Your task to perform on an android device: Go to settings Image 0: 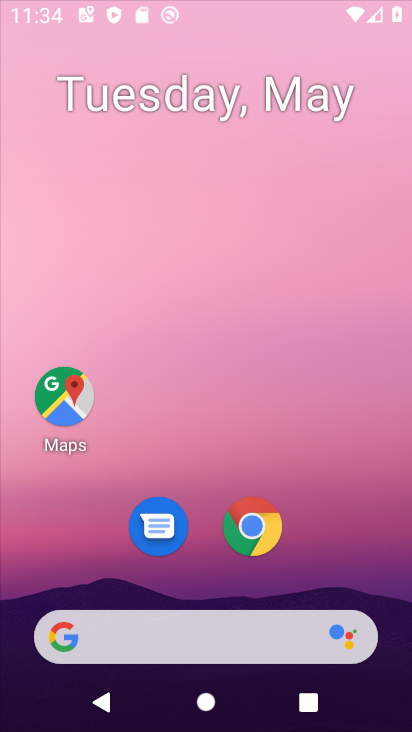
Step 0: drag from (224, 503) to (209, 230)
Your task to perform on an android device: Go to settings Image 1: 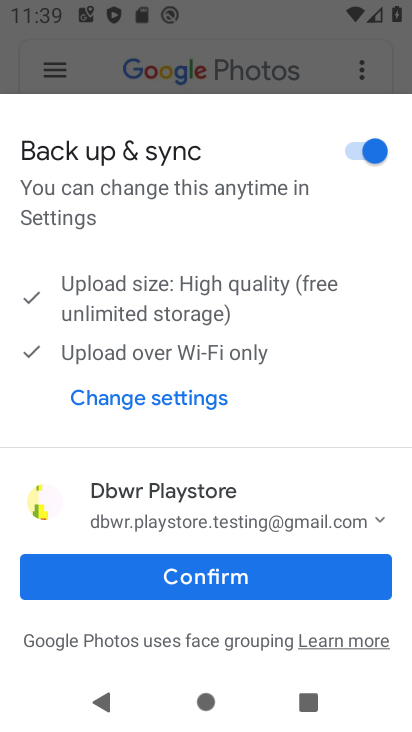
Step 1: press home button
Your task to perform on an android device: Go to settings Image 2: 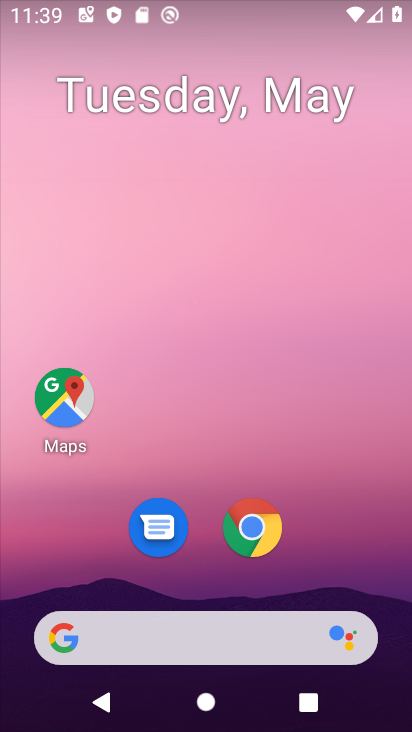
Step 2: drag from (269, 578) to (411, 257)
Your task to perform on an android device: Go to settings Image 3: 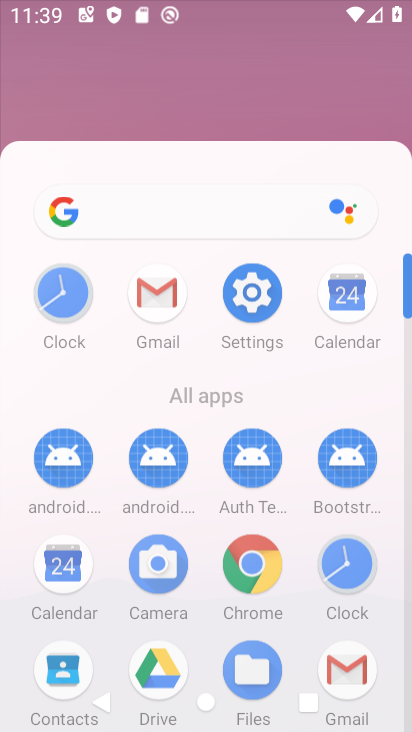
Step 3: click (260, 175)
Your task to perform on an android device: Go to settings Image 4: 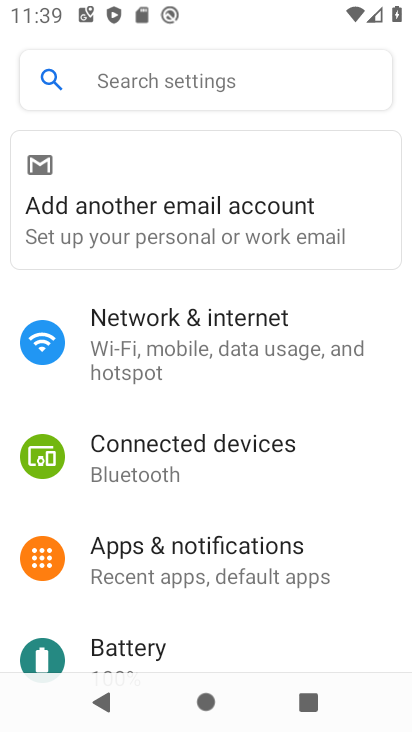
Step 4: task complete